Your task to perform on an android device: Go to Maps Image 0: 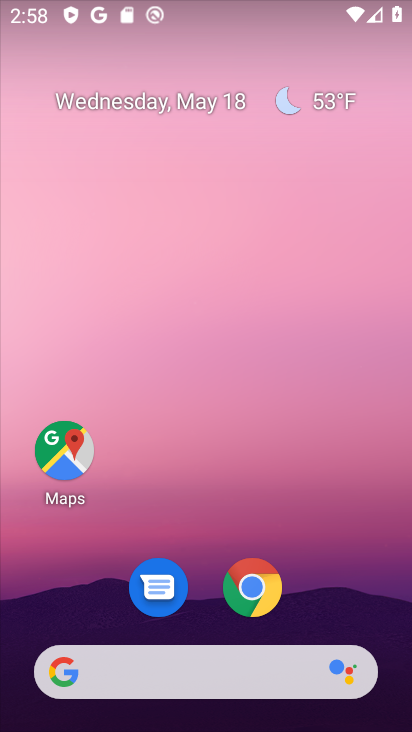
Step 0: press home button
Your task to perform on an android device: Go to Maps Image 1: 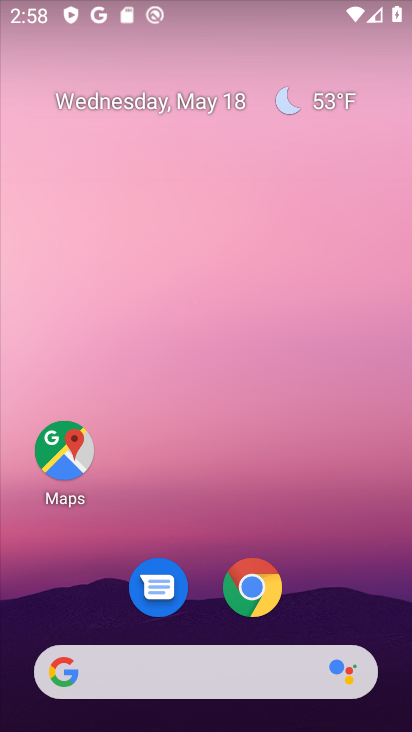
Step 1: drag from (241, 661) to (287, 199)
Your task to perform on an android device: Go to Maps Image 2: 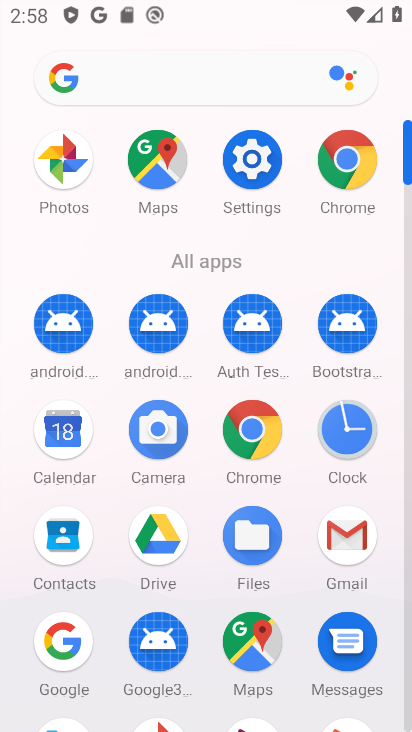
Step 2: click (266, 661)
Your task to perform on an android device: Go to Maps Image 3: 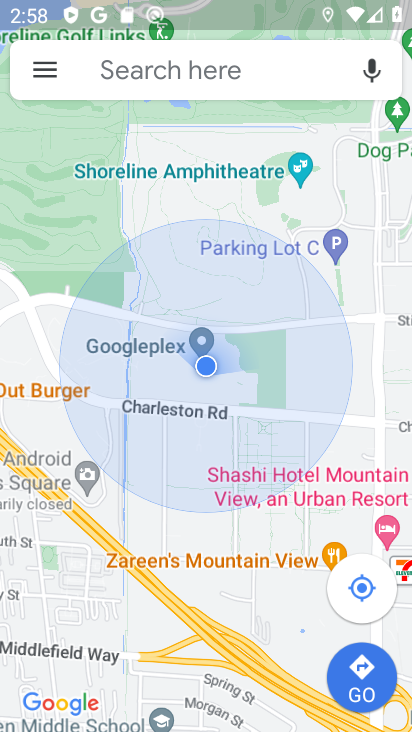
Step 3: click (225, 71)
Your task to perform on an android device: Go to Maps Image 4: 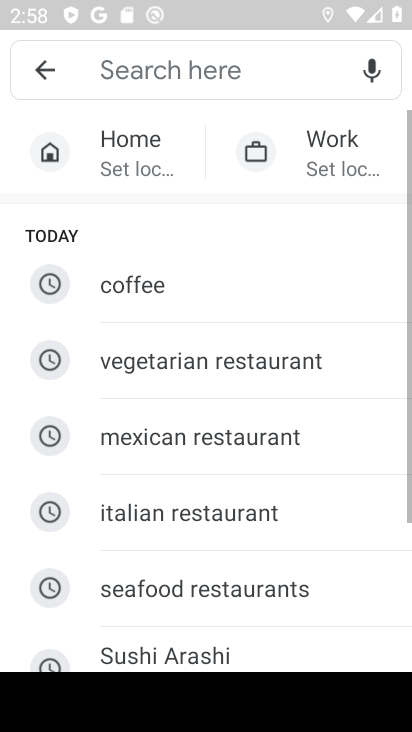
Step 4: task complete